Your task to perform on an android device: Open Google Chrome and open the bookmarks view Image 0: 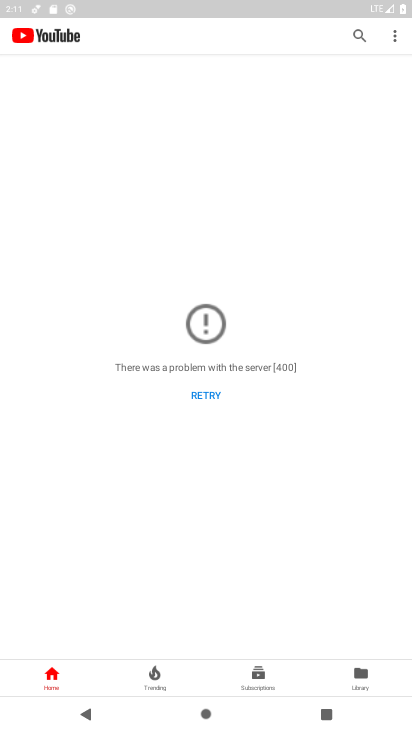
Step 0: press home button
Your task to perform on an android device: Open Google Chrome and open the bookmarks view Image 1: 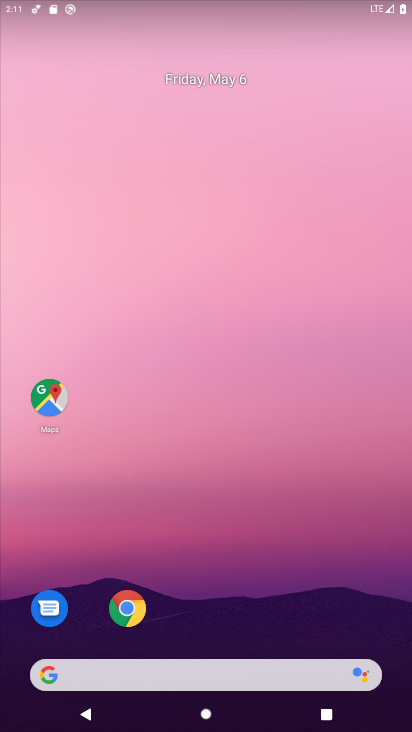
Step 1: click (133, 614)
Your task to perform on an android device: Open Google Chrome and open the bookmarks view Image 2: 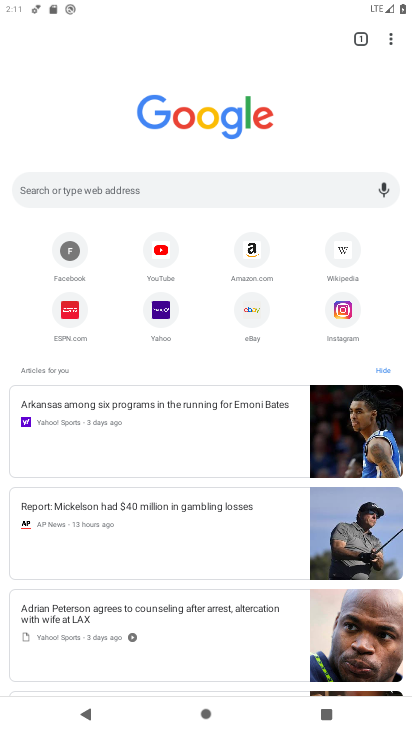
Step 2: click (387, 33)
Your task to perform on an android device: Open Google Chrome and open the bookmarks view Image 3: 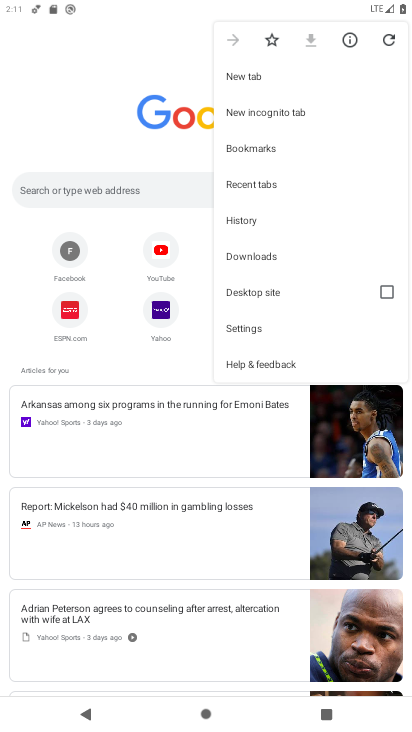
Step 3: click (260, 149)
Your task to perform on an android device: Open Google Chrome and open the bookmarks view Image 4: 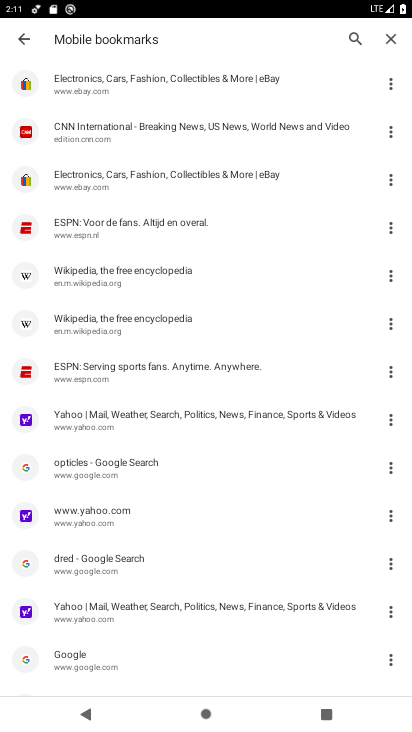
Step 4: task complete